Your task to perform on an android device: Open the web browser Image 0: 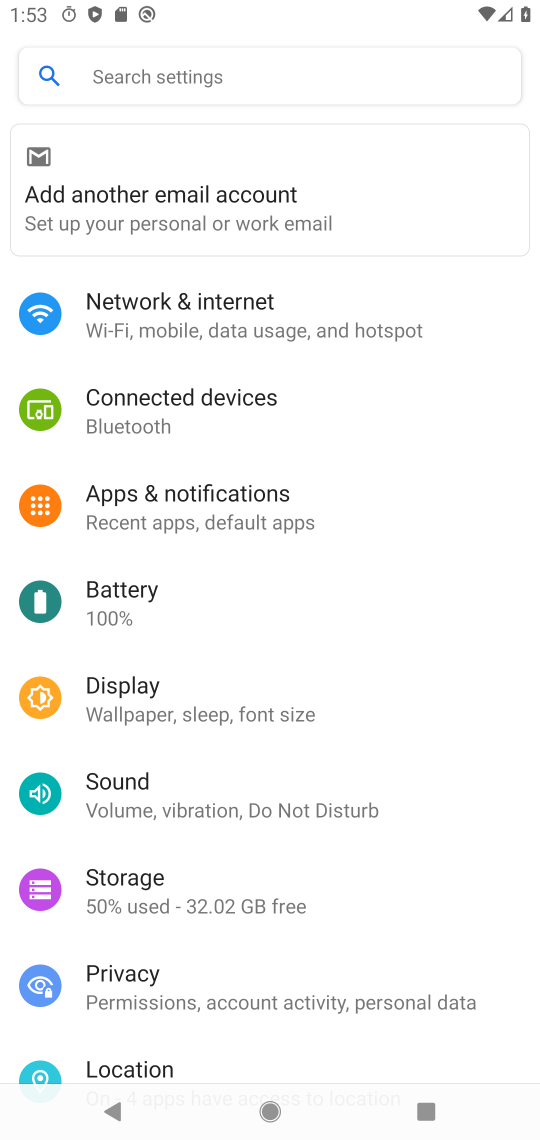
Step 0: press home button
Your task to perform on an android device: Open the web browser Image 1: 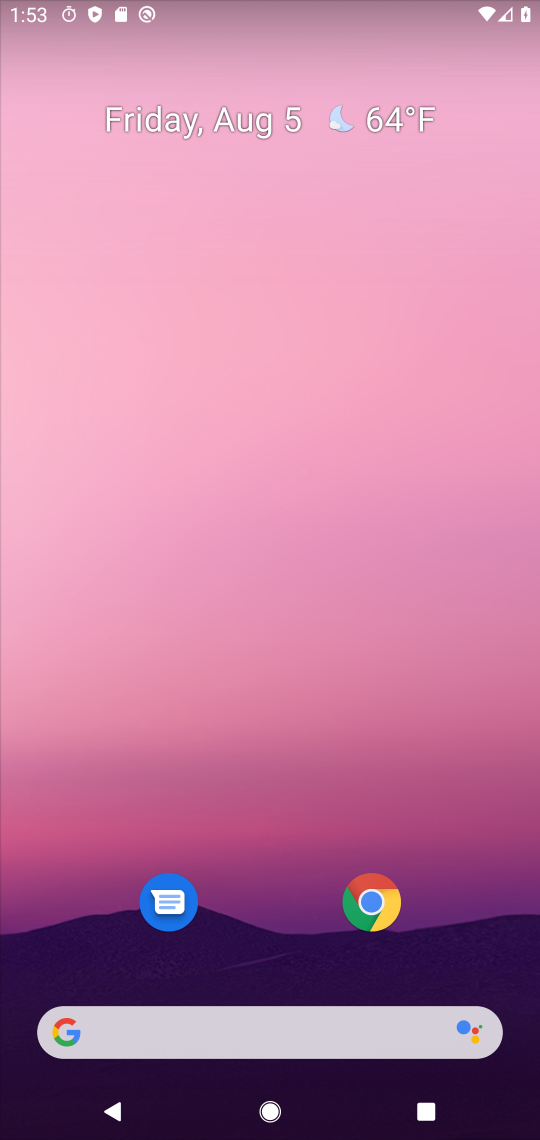
Step 1: drag from (274, 1016) to (292, 456)
Your task to perform on an android device: Open the web browser Image 2: 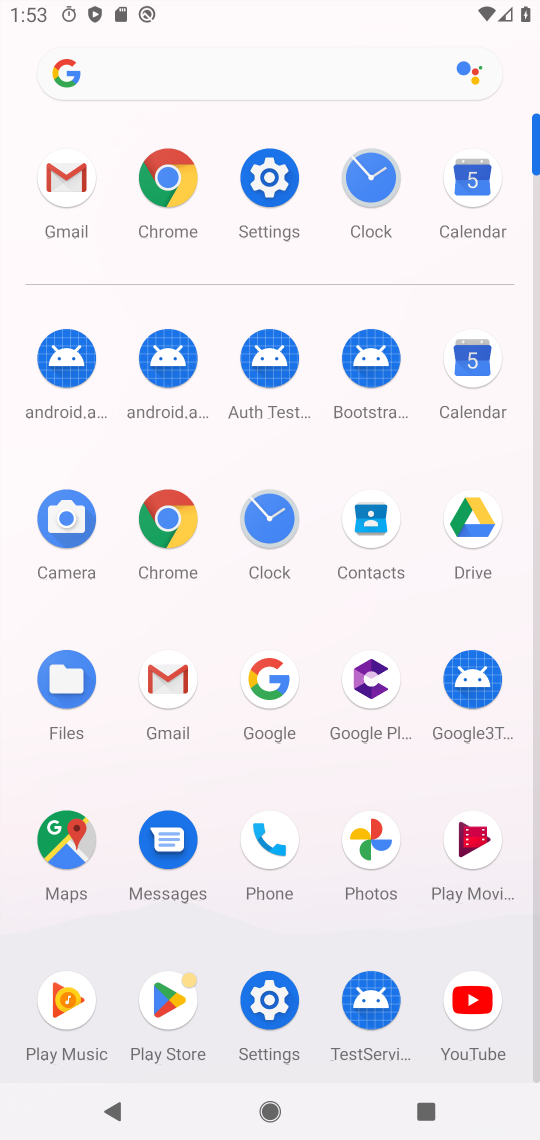
Step 2: click (140, 193)
Your task to perform on an android device: Open the web browser Image 3: 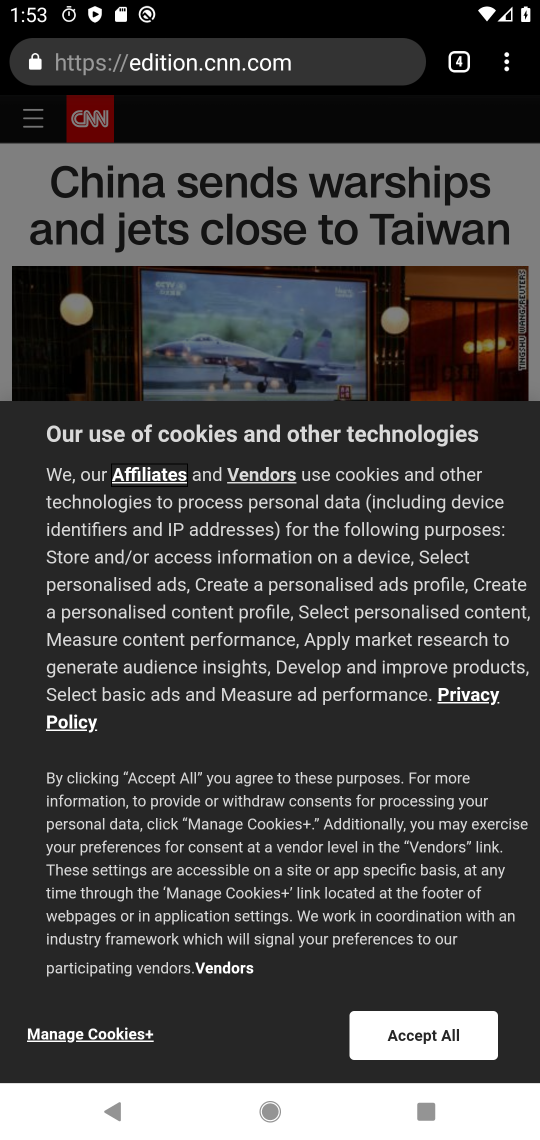
Step 3: click (288, 59)
Your task to perform on an android device: Open the web browser Image 4: 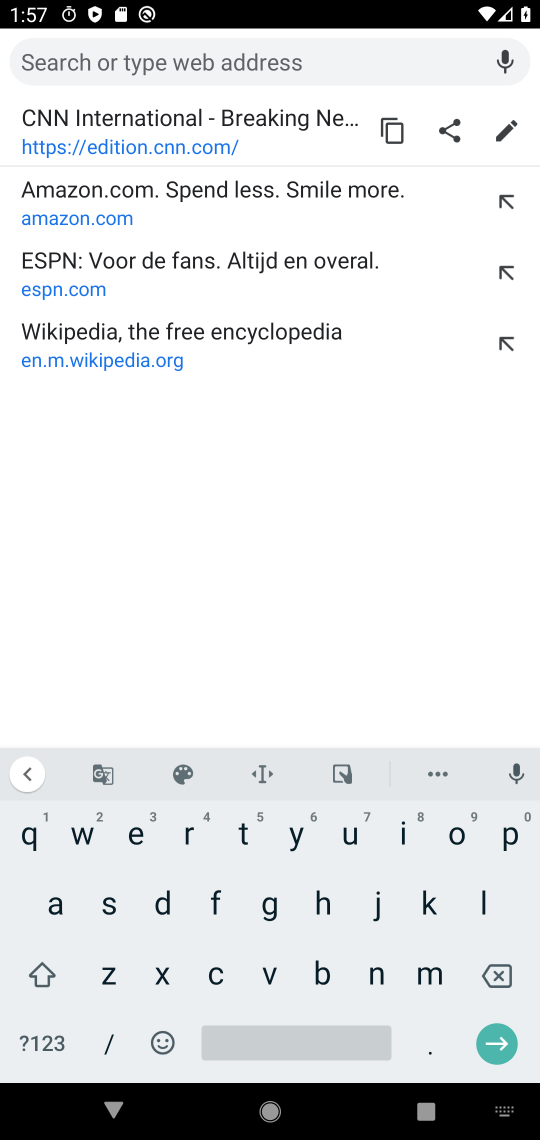
Step 4: task complete